Your task to perform on an android device: Play the last video I watched on Youtube Image 0: 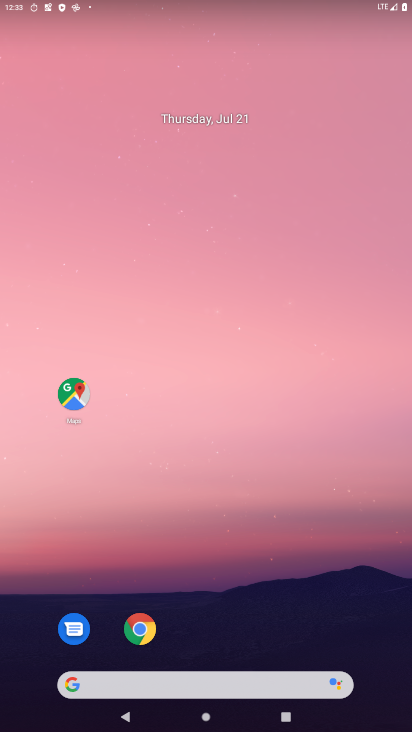
Step 0: drag from (248, 666) to (330, 34)
Your task to perform on an android device: Play the last video I watched on Youtube Image 1: 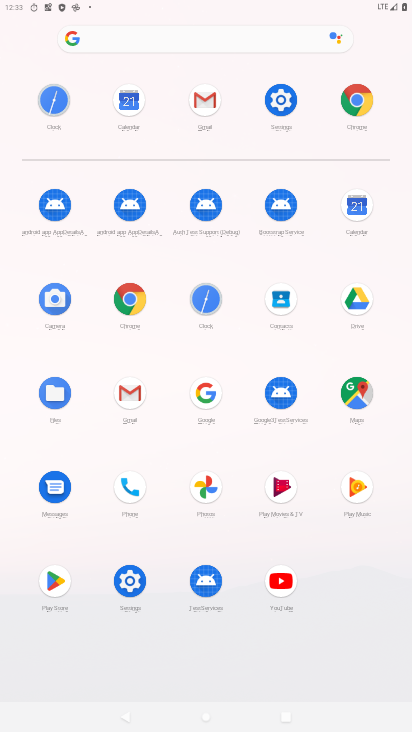
Step 1: click (292, 583)
Your task to perform on an android device: Play the last video I watched on Youtube Image 2: 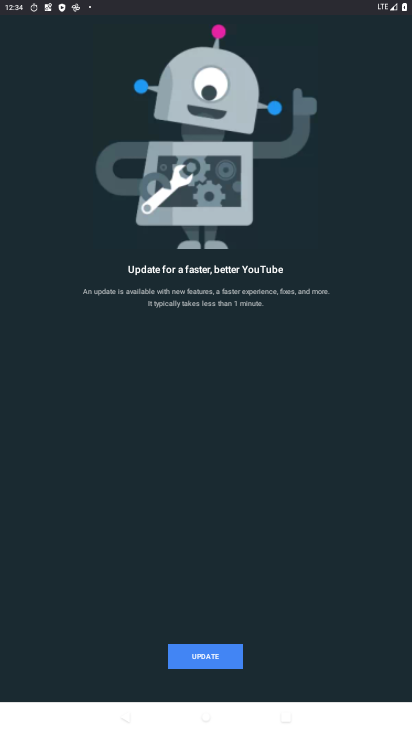
Step 2: press home button
Your task to perform on an android device: Play the last video I watched on Youtube Image 3: 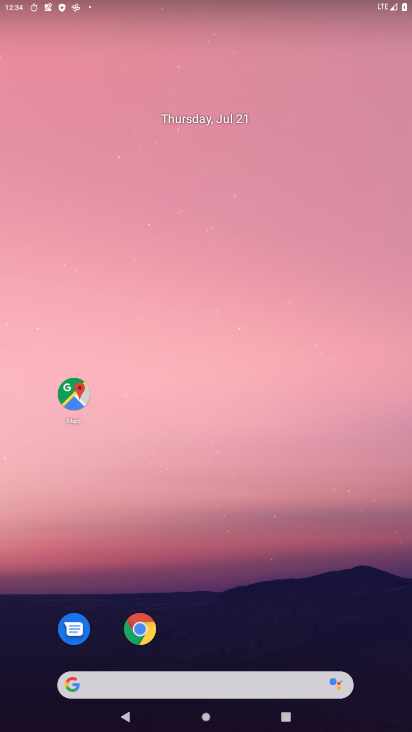
Step 3: drag from (269, 680) to (303, 203)
Your task to perform on an android device: Play the last video I watched on Youtube Image 4: 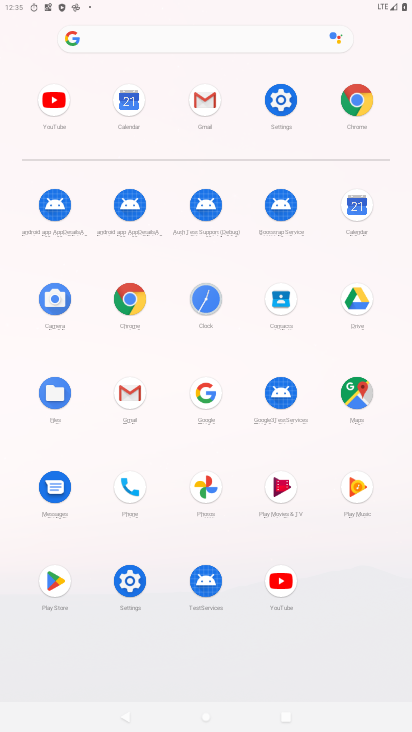
Step 4: click (278, 583)
Your task to perform on an android device: Play the last video I watched on Youtube Image 5: 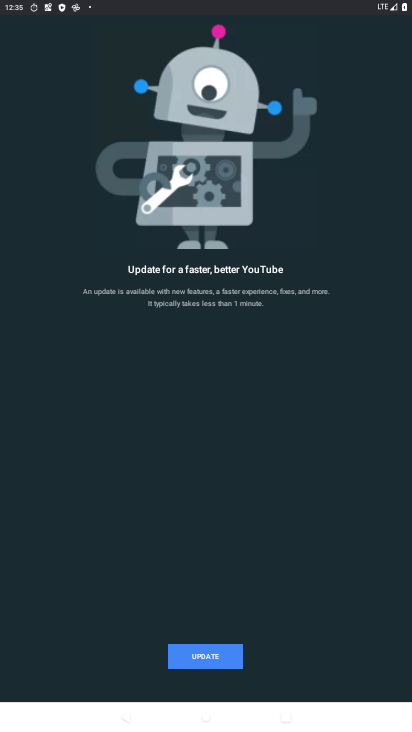
Step 5: click (209, 659)
Your task to perform on an android device: Play the last video I watched on Youtube Image 6: 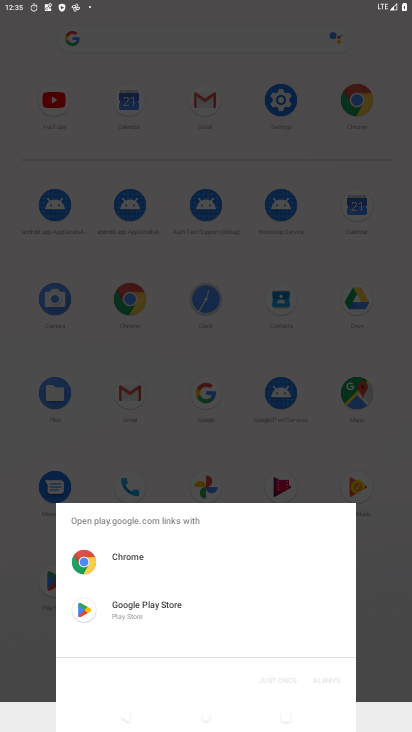
Step 6: click (128, 610)
Your task to perform on an android device: Play the last video I watched on Youtube Image 7: 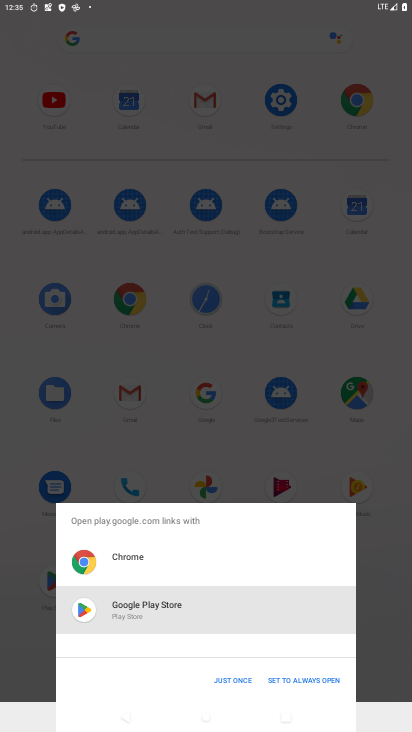
Step 7: click (230, 675)
Your task to perform on an android device: Play the last video I watched on Youtube Image 8: 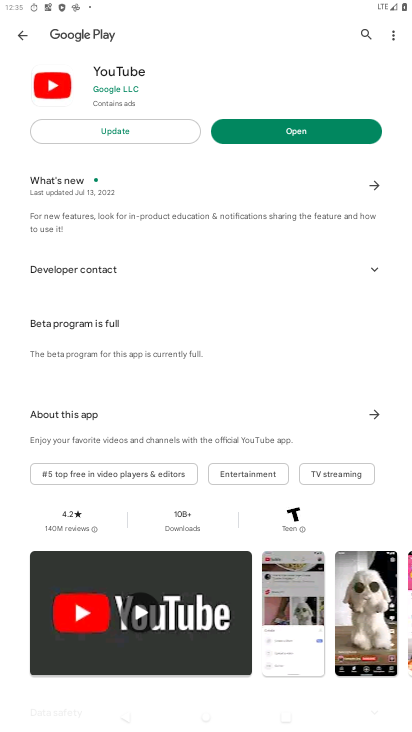
Step 8: click (142, 121)
Your task to perform on an android device: Play the last video I watched on Youtube Image 9: 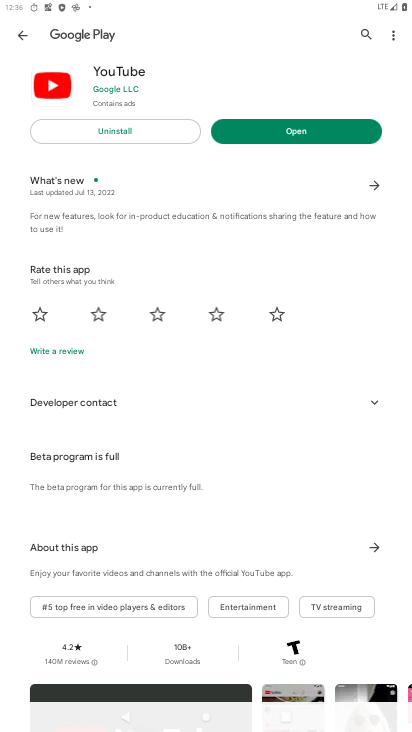
Step 9: click (297, 131)
Your task to perform on an android device: Play the last video I watched on Youtube Image 10: 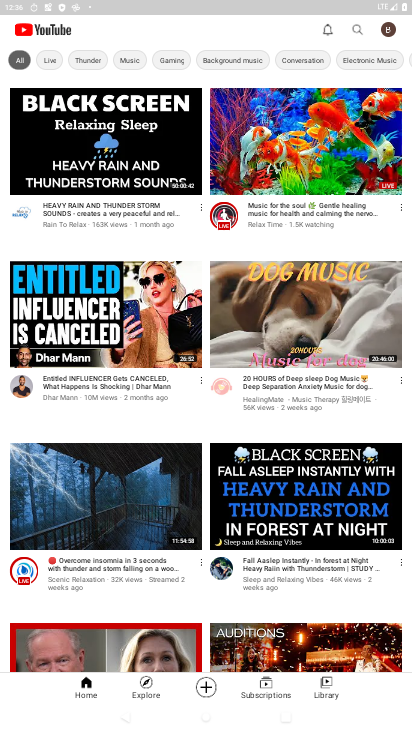
Step 10: click (323, 692)
Your task to perform on an android device: Play the last video I watched on Youtube Image 11: 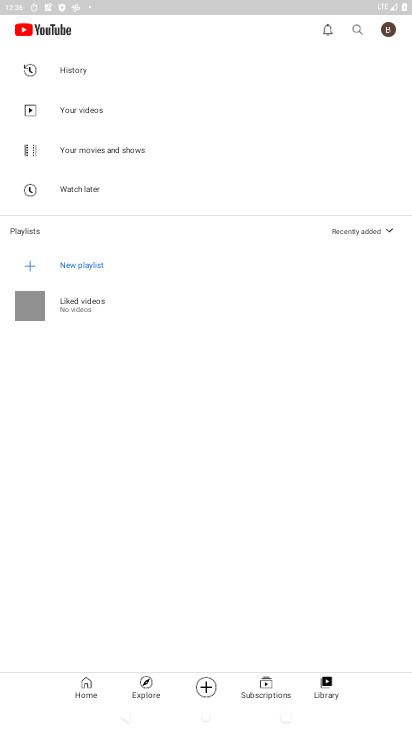
Step 11: click (92, 306)
Your task to perform on an android device: Play the last video I watched on Youtube Image 12: 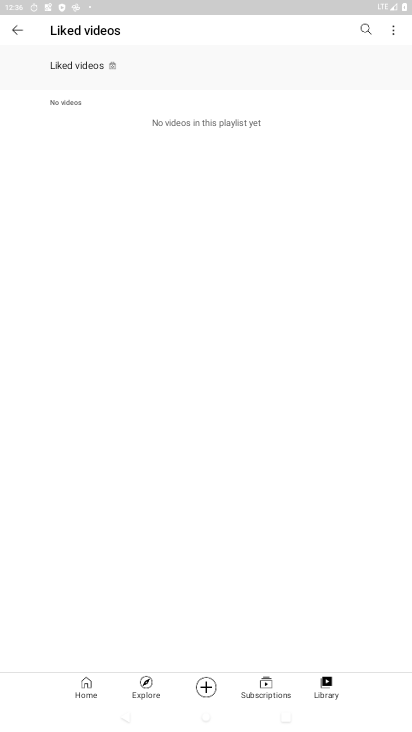
Step 12: task complete